Your task to perform on an android device: open app "ZOOM Cloud Meetings" (install if not already installed) Image 0: 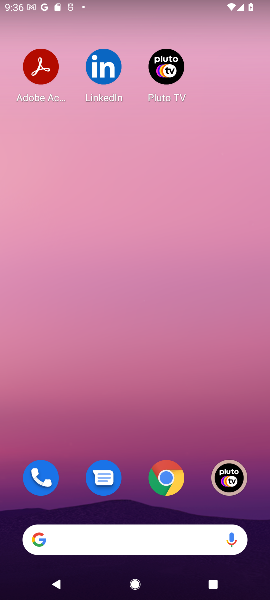
Step 0: drag from (194, 501) to (177, 143)
Your task to perform on an android device: open app "ZOOM Cloud Meetings" (install if not already installed) Image 1: 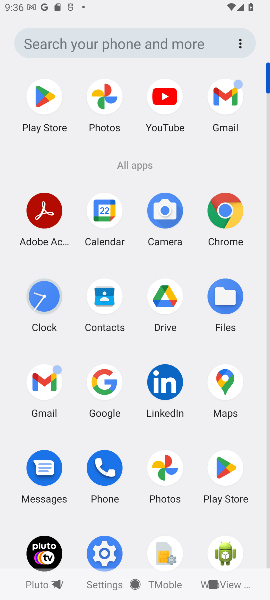
Step 1: click (64, 94)
Your task to perform on an android device: open app "ZOOM Cloud Meetings" (install if not already installed) Image 2: 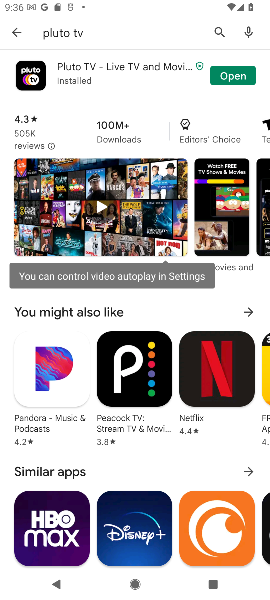
Step 2: click (228, 69)
Your task to perform on an android device: open app "ZOOM Cloud Meetings" (install if not already installed) Image 3: 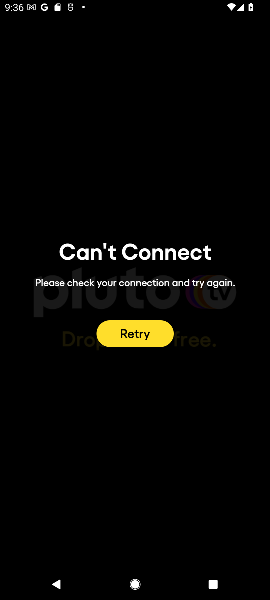
Step 3: press home button
Your task to perform on an android device: open app "ZOOM Cloud Meetings" (install if not already installed) Image 4: 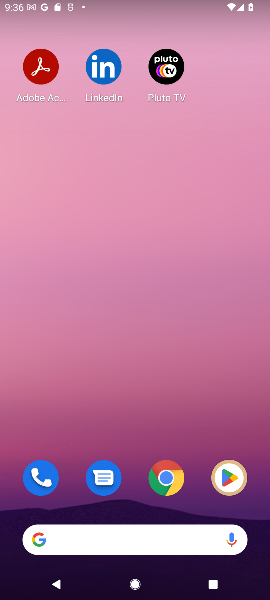
Step 4: click (216, 461)
Your task to perform on an android device: open app "ZOOM Cloud Meetings" (install if not already installed) Image 5: 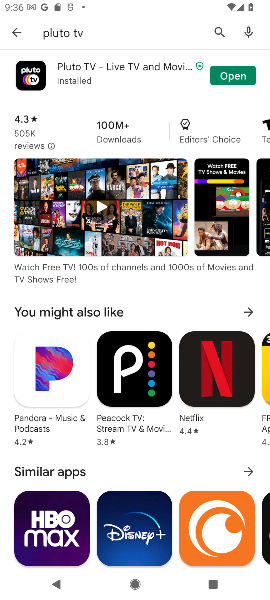
Step 5: click (220, 28)
Your task to perform on an android device: open app "ZOOM Cloud Meetings" (install if not already installed) Image 6: 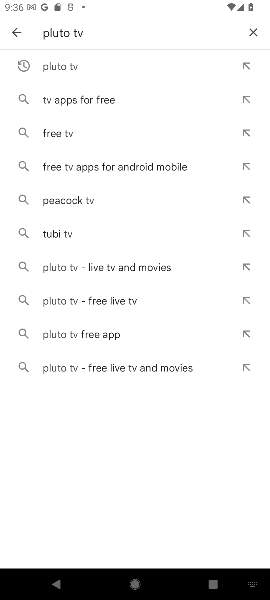
Step 6: click (252, 34)
Your task to perform on an android device: open app "ZOOM Cloud Meetings" (install if not already installed) Image 7: 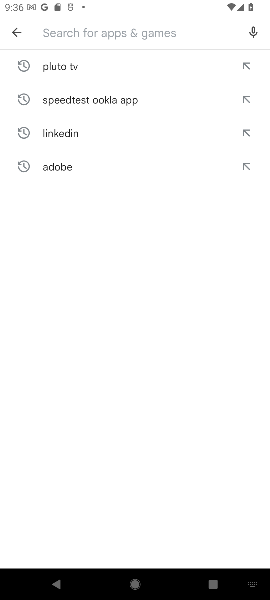
Step 7: type "zoom meeting"
Your task to perform on an android device: open app "ZOOM Cloud Meetings" (install if not already installed) Image 8: 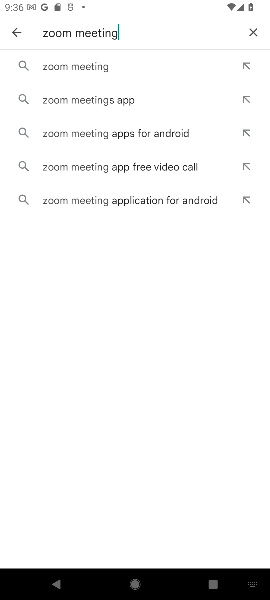
Step 8: click (143, 70)
Your task to perform on an android device: open app "ZOOM Cloud Meetings" (install if not already installed) Image 9: 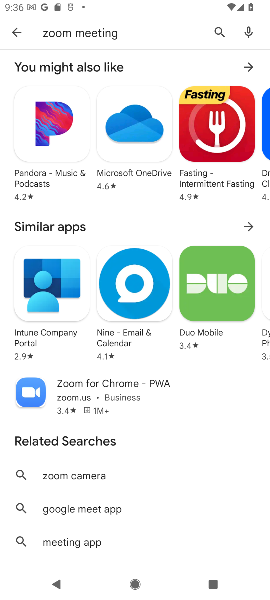
Step 9: task complete